Your task to perform on an android device: set an alarm Image 0: 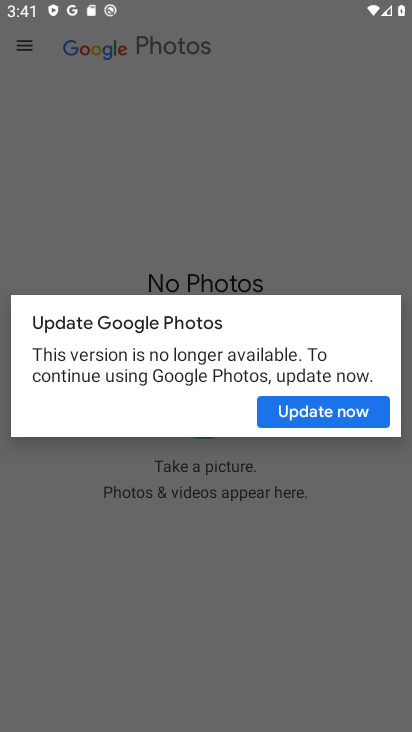
Step 0: click (204, 187)
Your task to perform on an android device: set an alarm Image 1: 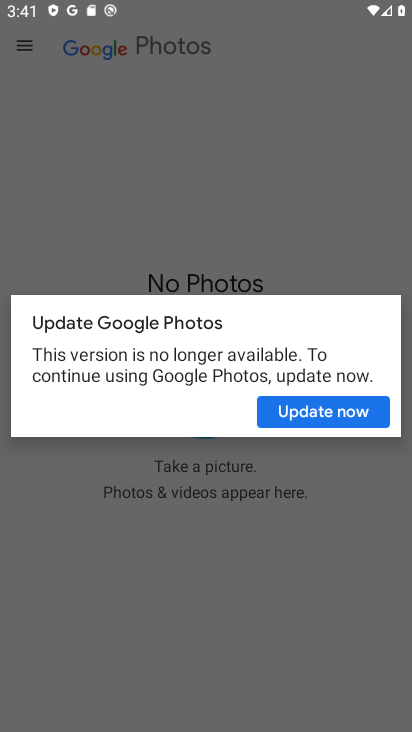
Step 1: click (204, 189)
Your task to perform on an android device: set an alarm Image 2: 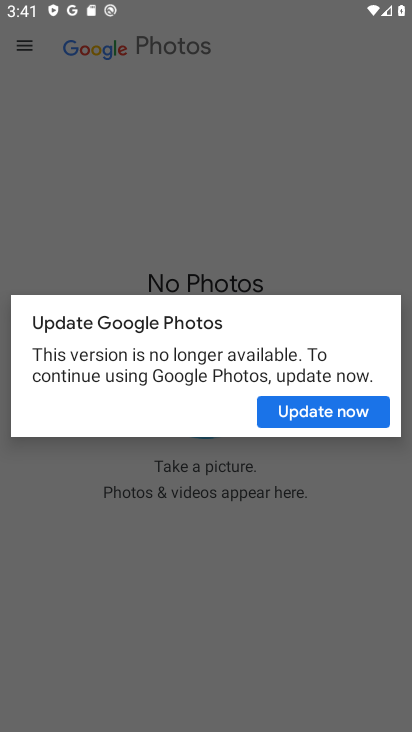
Step 2: click (204, 189)
Your task to perform on an android device: set an alarm Image 3: 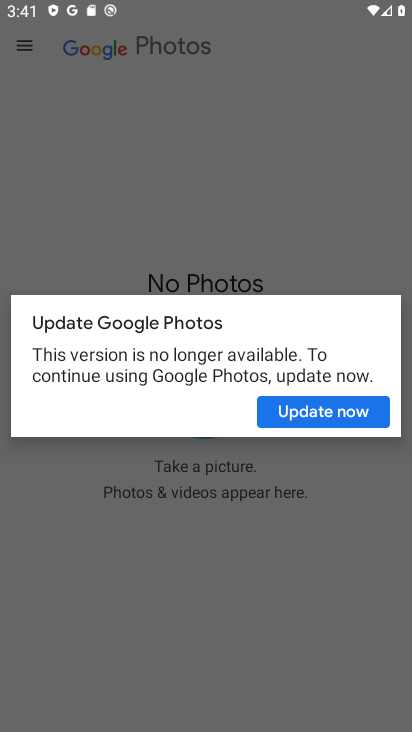
Step 3: click (320, 203)
Your task to perform on an android device: set an alarm Image 4: 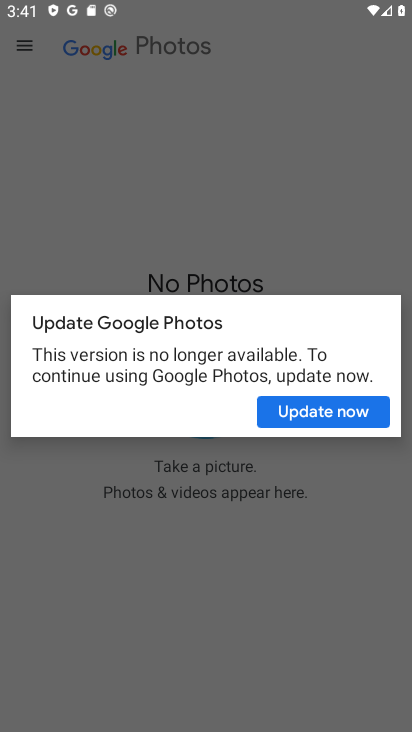
Step 4: click (320, 199)
Your task to perform on an android device: set an alarm Image 5: 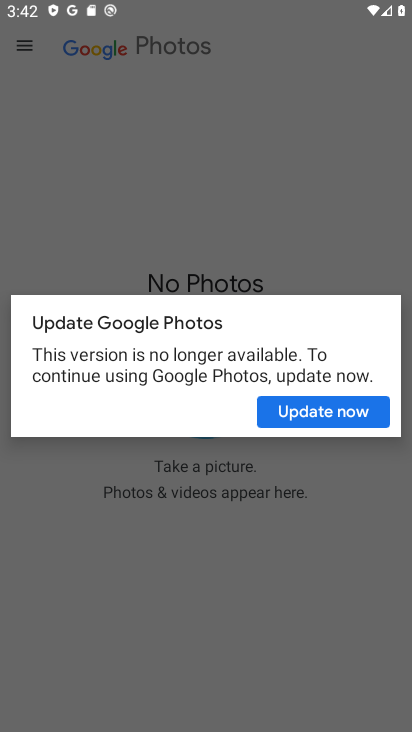
Step 5: press back button
Your task to perform on an android device: set an alarm Image 6: 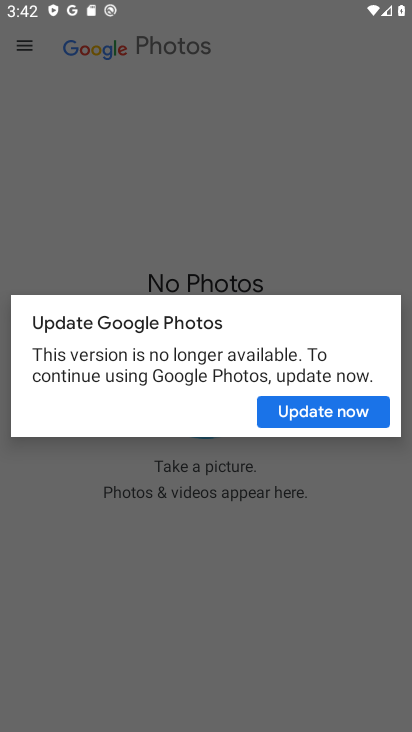
Step 6: press back button
Your task to perform on an android device: set an alarm Image 7: 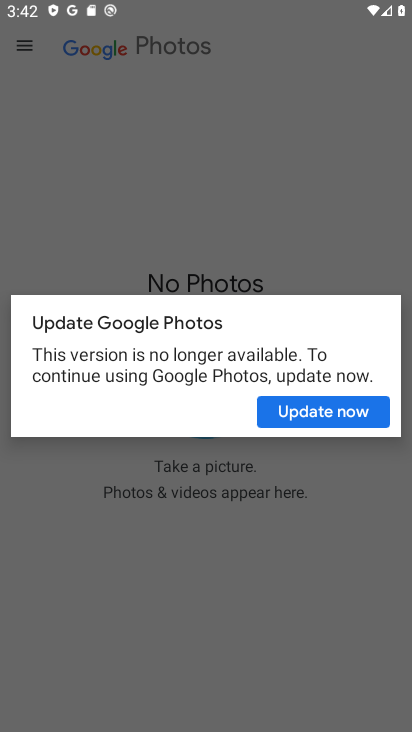
Step 7: click (215, 196)
Your task to perform on an android device: set an alarm Image 8: 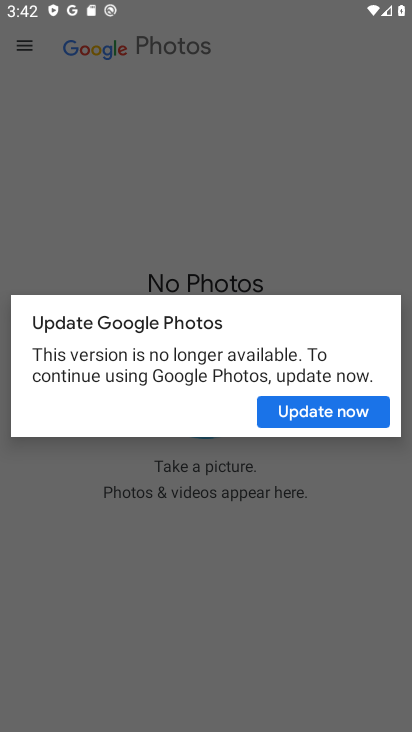
Step 8: press home button
Your task to perform on an android device: set an alarm Image 9: 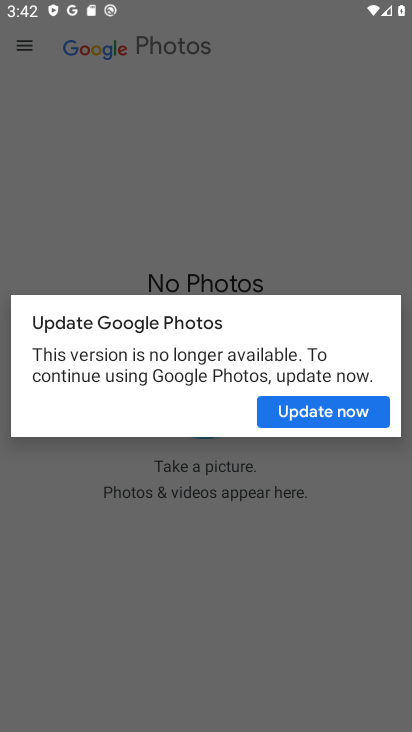
Step 9: press home button
Your task to perform on an android device: set an alarm Image 10: 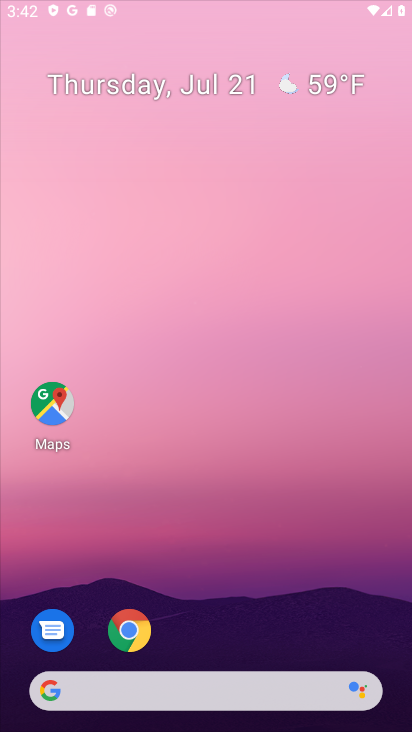
Step 10: press home button
Your task to perform on an android device: set an alarm Image 11: 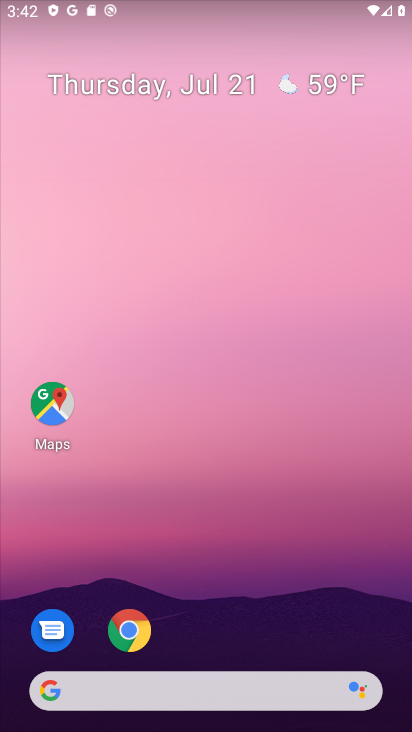
Step 11: press back button
Your task to perform on an android device: set an alarm Image 12: 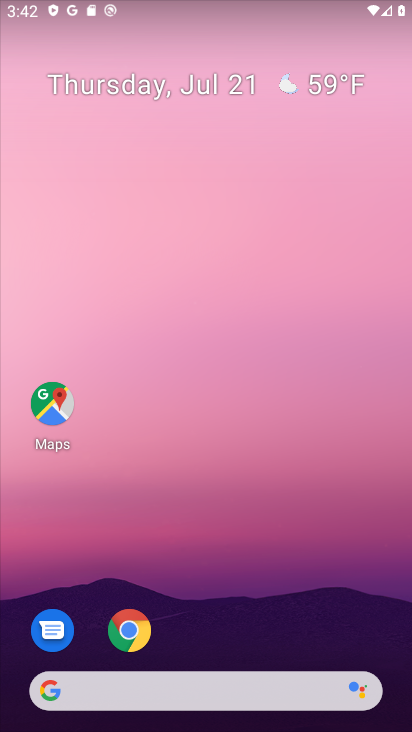
Step 12: press back button
Your task to perform on an android device: set an alarm Image 13: 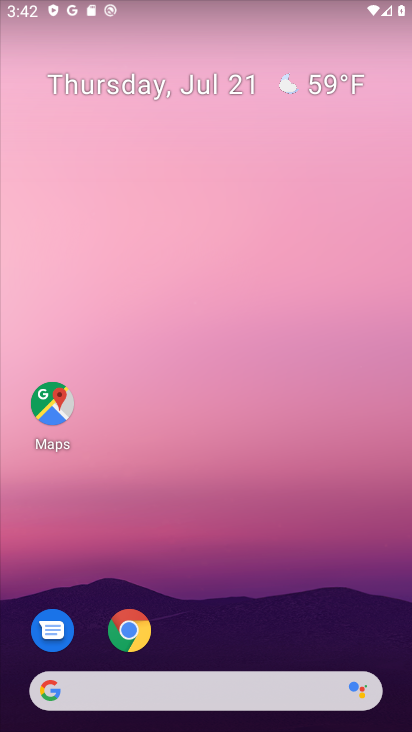
Step 13: drag from (182, 310) to (151, 42)
Your task to perform on an android device: set an alarm Image 14: 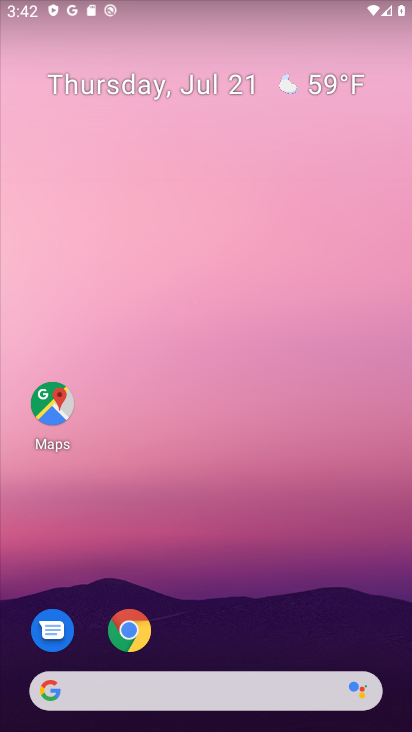
Step 14: drag from (163, 504) to (180, 9)
Your task to perform on an android device: set an alarm Image 15: 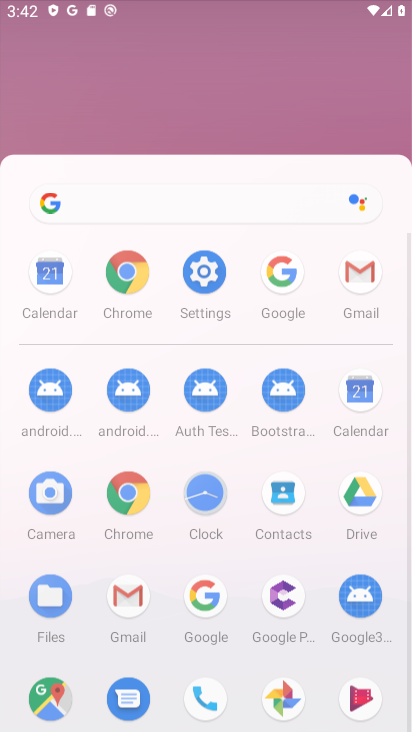
Step 15: drag from (209, 457) to (213, 104)
Your task to perform on an android device: set an alarm Image 16: 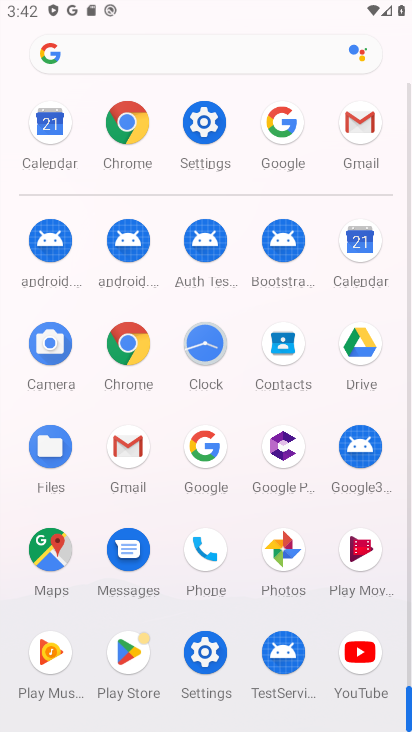
Step 16: click (210, 362)
Your task to perform on an android device: set an alarm Image 17: 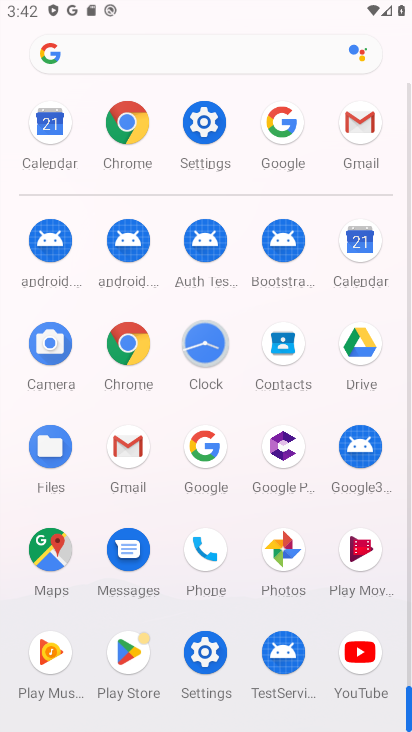
Step 17: click (210, 353)
Your task to perform on an android device: set an alarm Image 18: 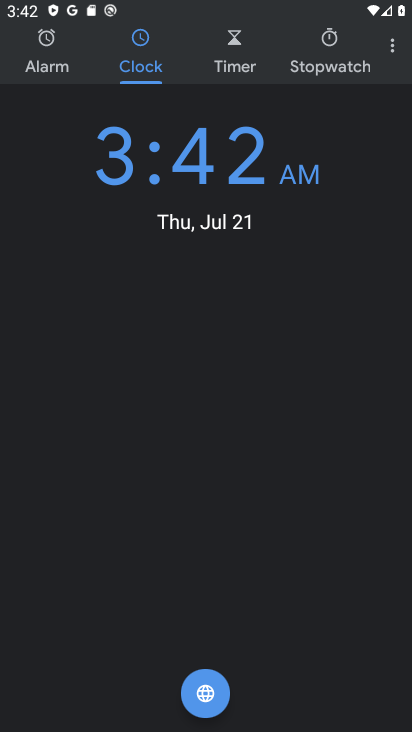
Step 18: click (57, 47)
Your task to perform on an android device: set an alarm Image 19: 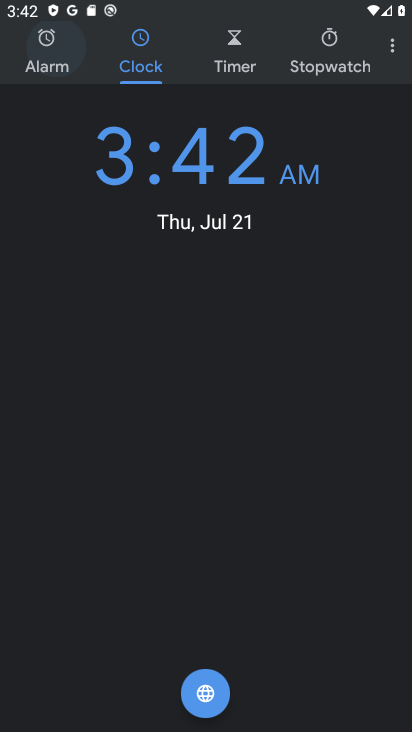
Step 19: click (59, 47)
Your task to perform on an android device: set an alarm Image 20: 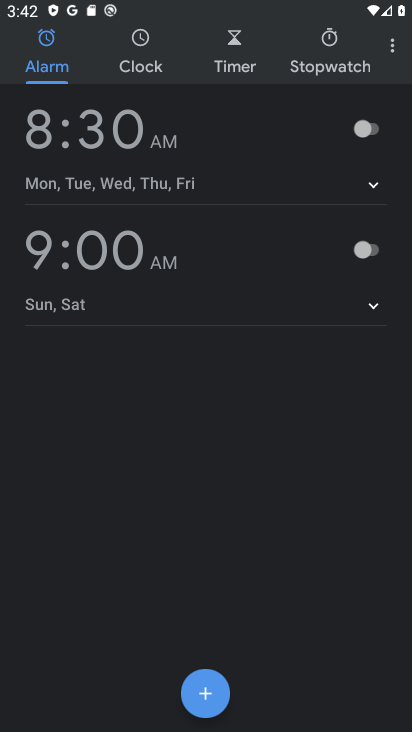
Step 20: click (353, 130)
Your task to perform on an android device: set an alarm Image 21: 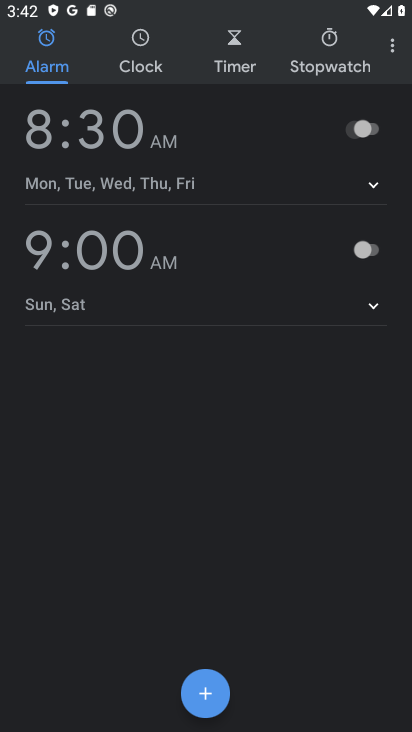
Step 21: click (357, 127)
Your task to perform on an android device: set an alarm Image 22: 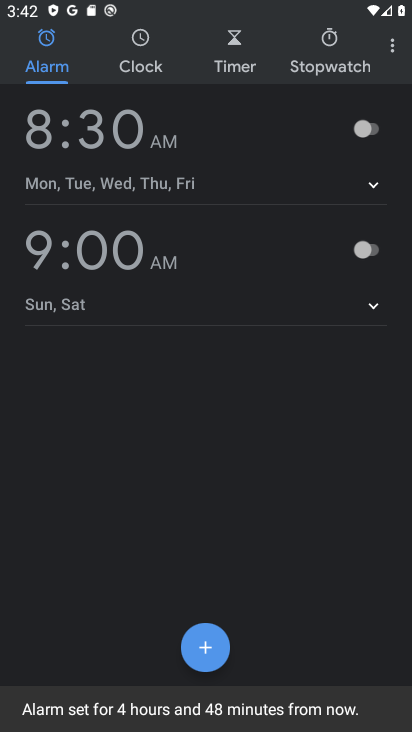
Step 22: task complete